Your task to perform on an android device: turn off priority inbox in the gmail app Image 0: 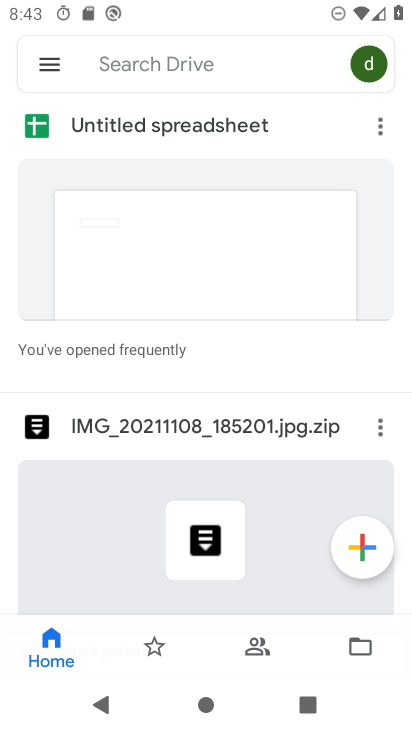
Step 0: press home button
Your task to perform on an android device: turn off priority inbox in the gmail app Image 1: 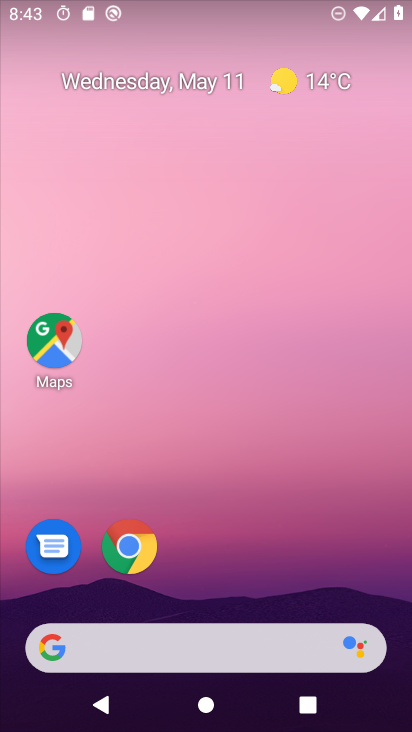
Step 1: drag from (197, 664) to (157, 327)
Your task to perform on an android device: turn off priority inbox in the gmail app Image 2: 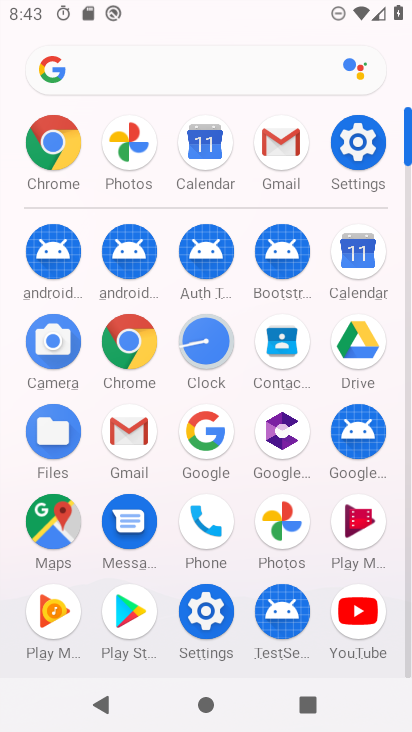
Step 2: click (281, 154)
Your task to perform on an android device: turn off priority inbox in the gmail app Image 3: 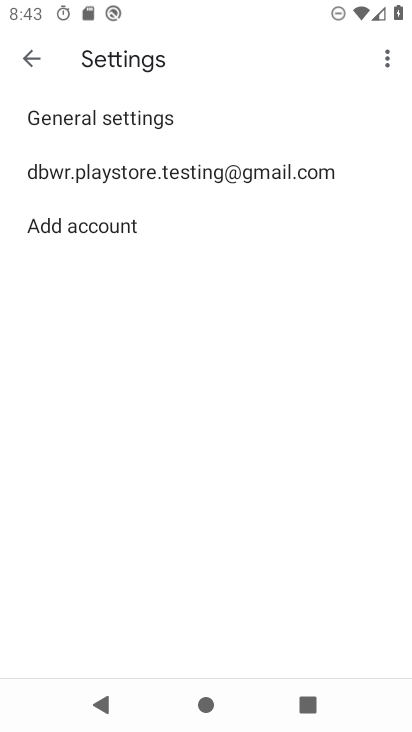
Step 3: click (205, 164)
Your task to perform on an android device: turn off priority inbox in the gmail app Image 4: 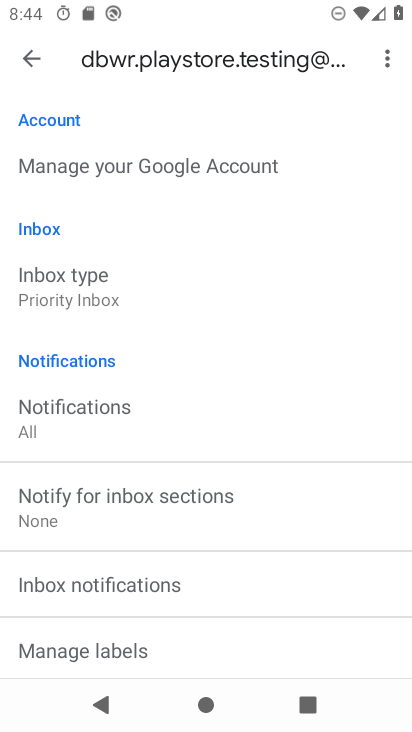
Step 4: click (123, 276)
Your task to perform on an android device: turn off priority inbox in the gmail app Image 5: 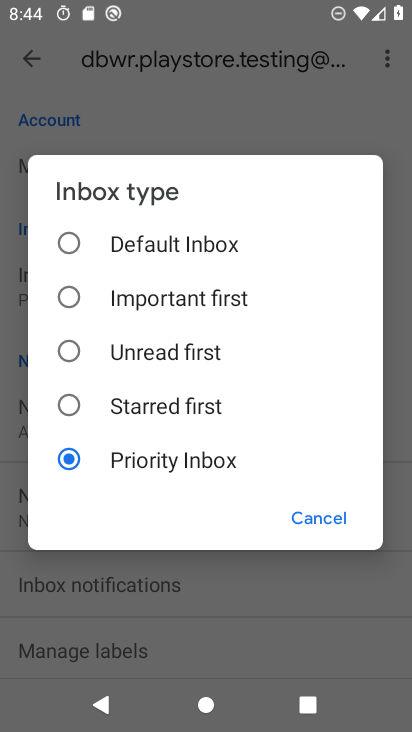
Step 5: click (103, 403)
Your task to perform on an android device: turn off priority inbox in the gmail app Image 6: 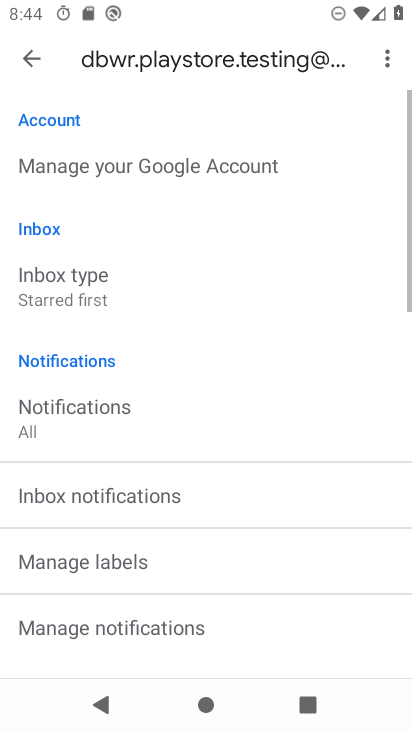
Step 6: task complete